Your task to perform on an android device: Search for "lg ultragear" on walmart, select the first entry, add it to the cart, then select checkout. Image 0: 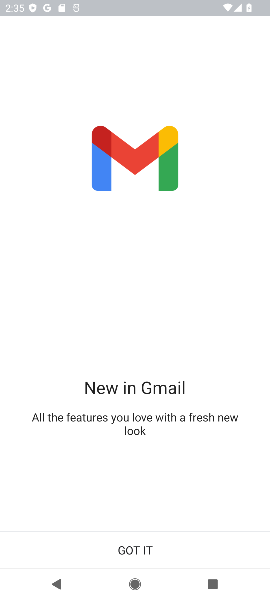
Step 0: press home button
Your task to perform on an android device: Search for "lg ultragear" on walmart, select the first entry, add it to the cart, then select checkout. Image 1: 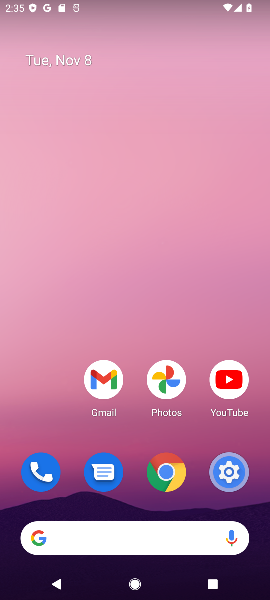
Step 1: click (179, 536)
Your task to perform on an android device: Search for "lg ultragear" on walmart, select the first entry, add it to the cart, then select checkout. Image 2: 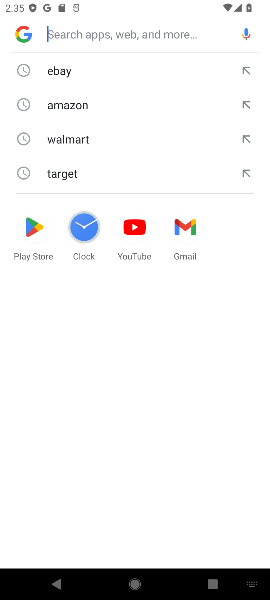
Step 2: click (100, 141)
Your task to perform on an android device: Search for "lg ultragear" on walmart, select the first entry, add it to the cart, then select checkout. Image 3: 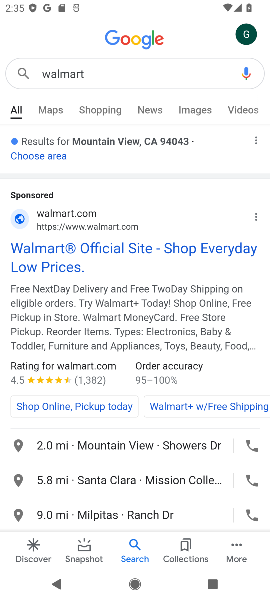
Step 3: click (39, 259)
Your task to perform on an android device: Search for "lg ultragear" on walmart, select the first entry, add it to the cart, then select checkout. Image 4: 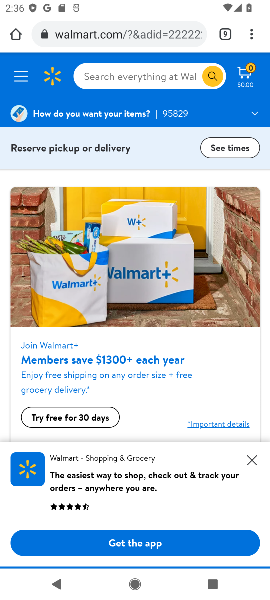
Step 4: task complete